Your task to perform on an android device: check battery use Image 0: 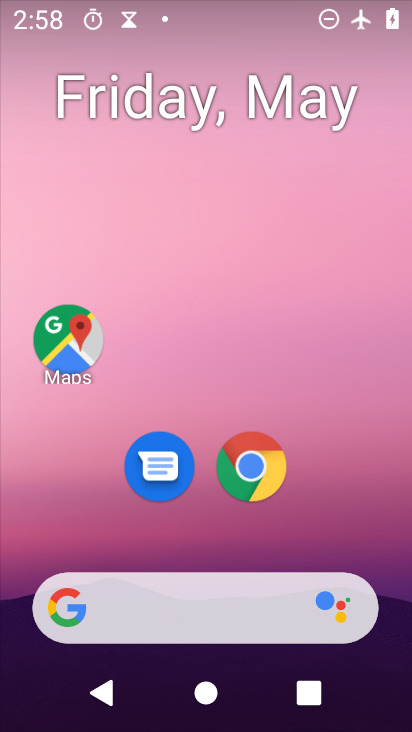
Step 0: drag from (348, 547) to (404, 84)
Your task to perform on an android device: check battery use Image 1: 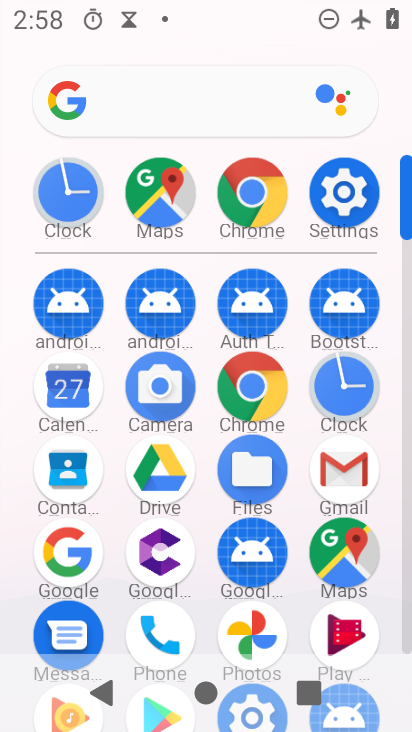
Step 1: click (345, 192)
Your task to perform on an android device: check battery use Image 2: 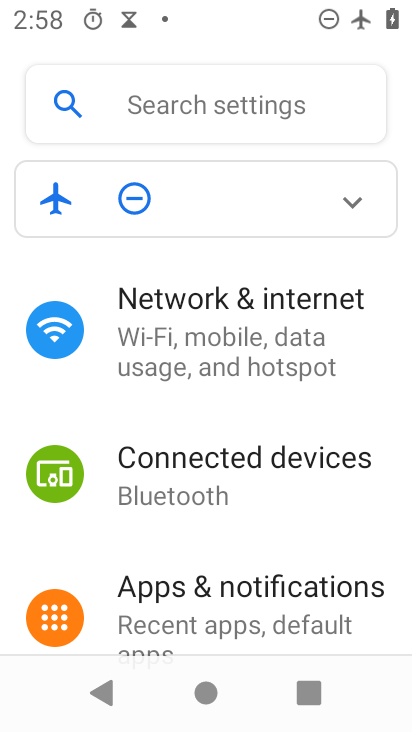
Step 2: drag from (200, 599) to (280, 186)
Your task to perform on an android device: check battery use Image 3: 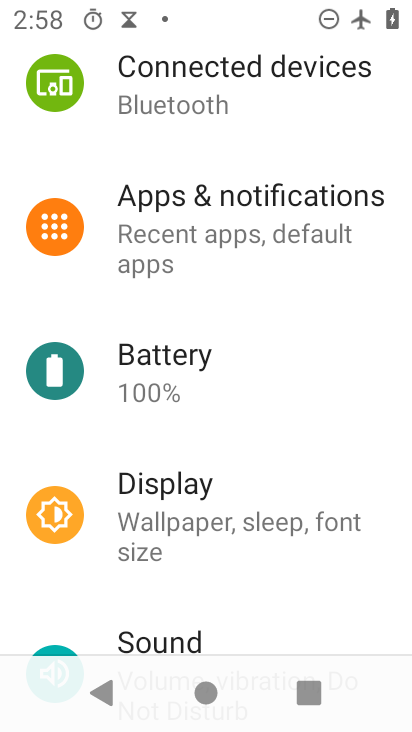
Step 3: drag from (221, 514) to (263, 184)
Your task to perform on an android device: check battery use Image 4: 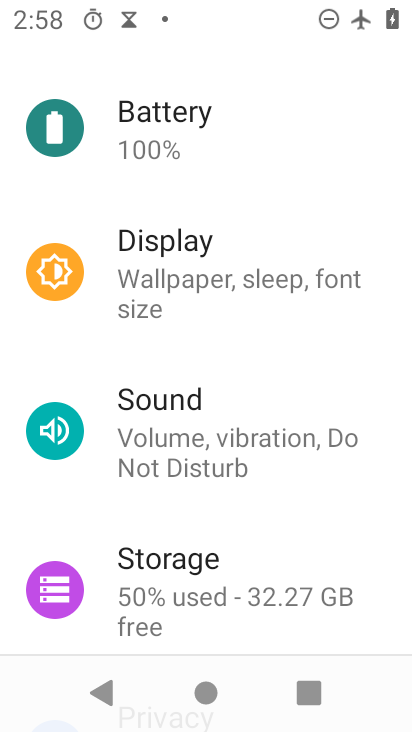
Step 4: click (208, 119)
Your task to perform on an android device: check battery use Image 5: 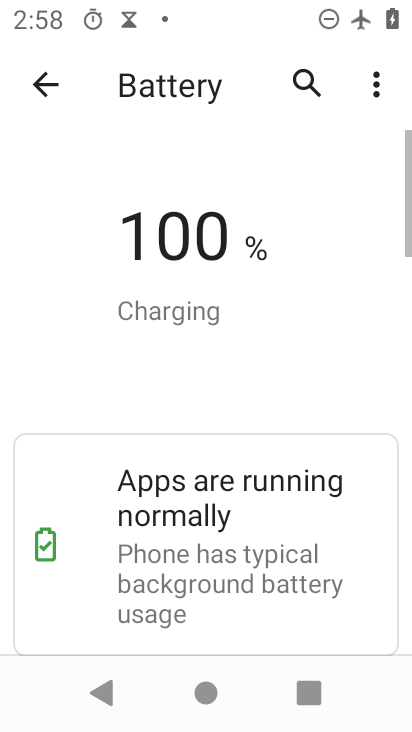
Step 5: task complete